Your task to perform on an android device: Open ESPN.com Image 0: 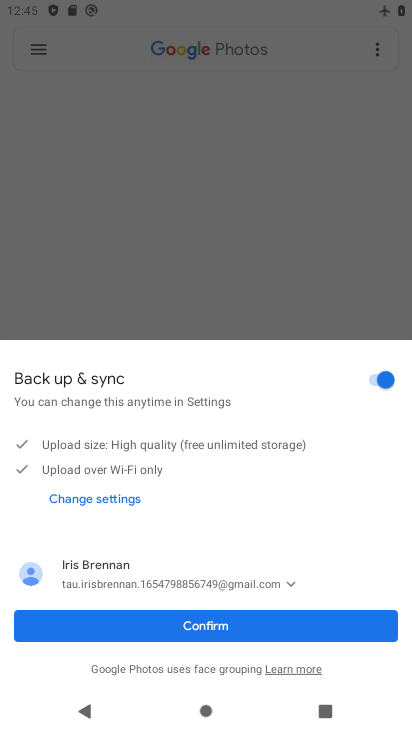
Step 0: press home button
Your task to perform on an android device: Open ESPN.com Image 1: 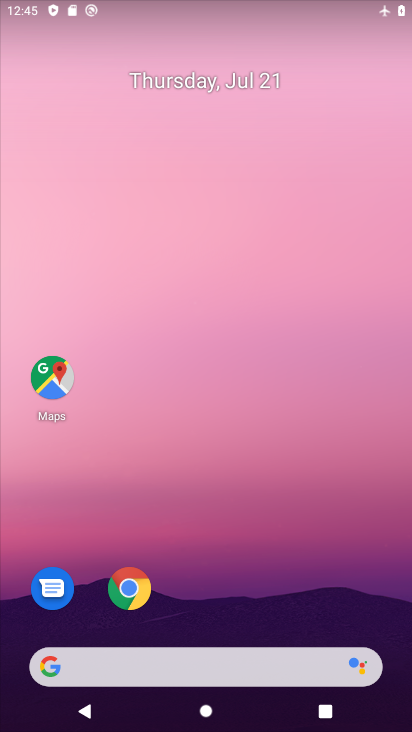
Step 1: click (130, 590)
Your task to perform on an android device: Open ESPN.com Image 2: 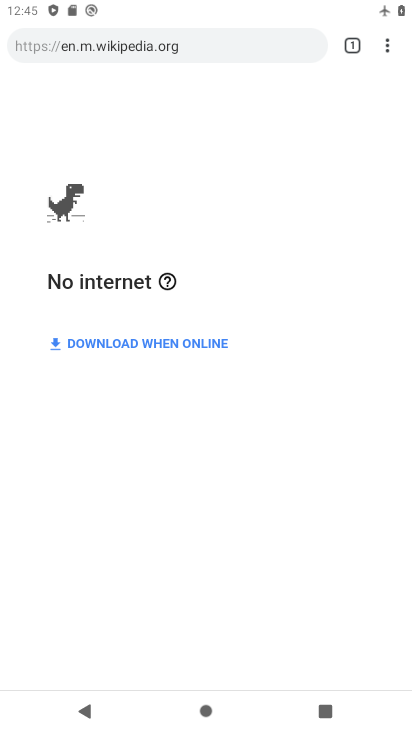
Step 2: click (351, 39)
Your task to perform on an android device: Open ESPN.com Image 3: 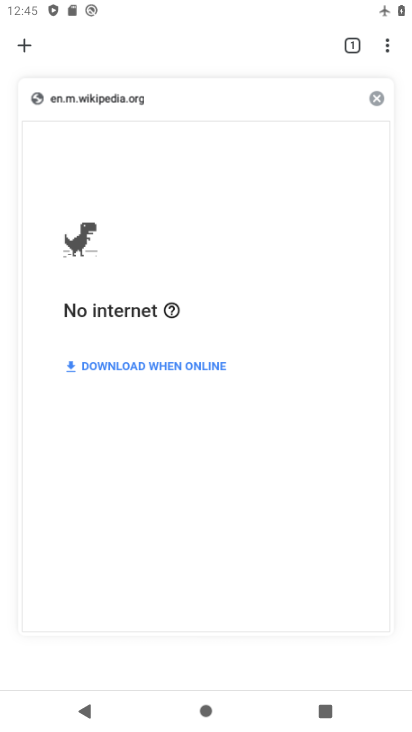
Step 3: click (22, 44)
Your task to perform on an android device: Open ESPN.com Image 4: 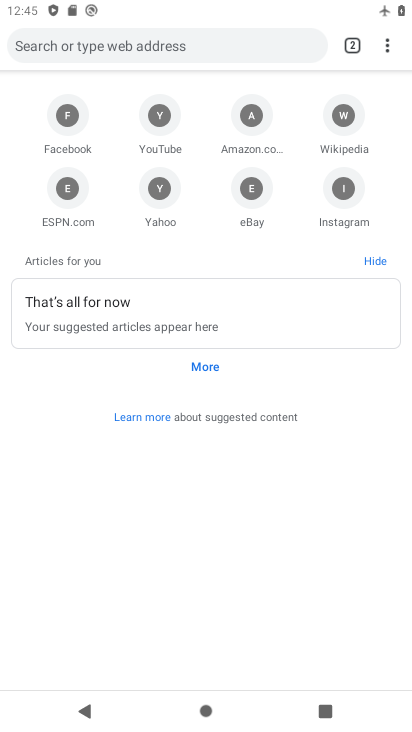
Step 4: click (73, 185)
Your task to perform on an android device: Open ESPN.com Image 5: 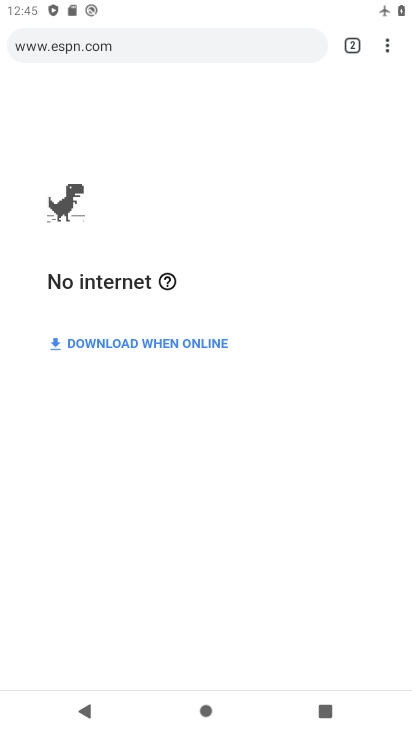
Step 5: task complete